Your task to perform on an android device: allow notifications from all sites in the chrome app Image 0: 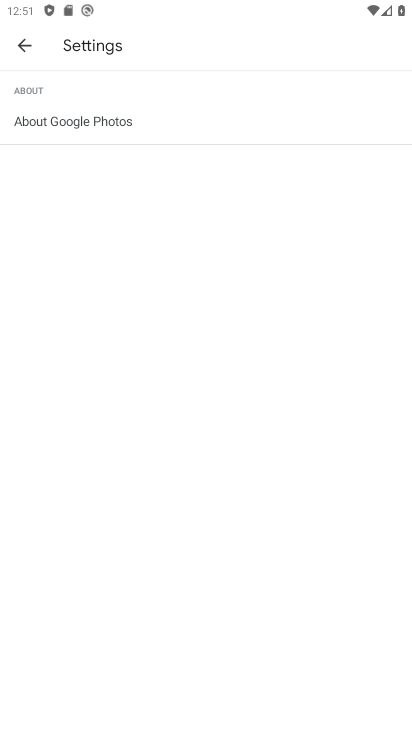
Step 0: press home button
Your task to perform on an android device: allow notifications from all sites in the chrome app Image 1: 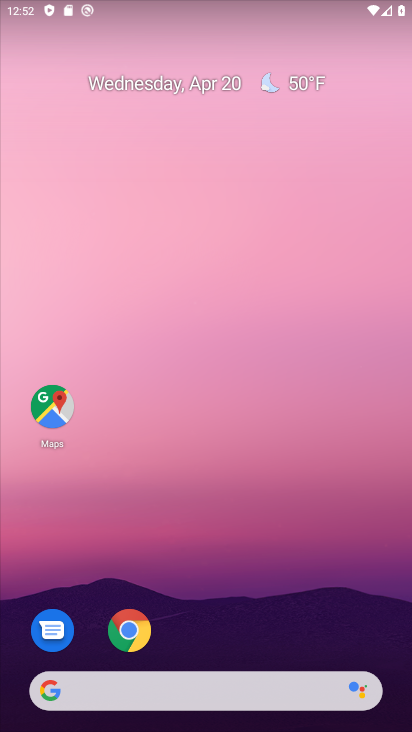
Step 1: click (129, 629)
Your task to perform on an android device: allow notifications from all sites in the chrome app Image 2: 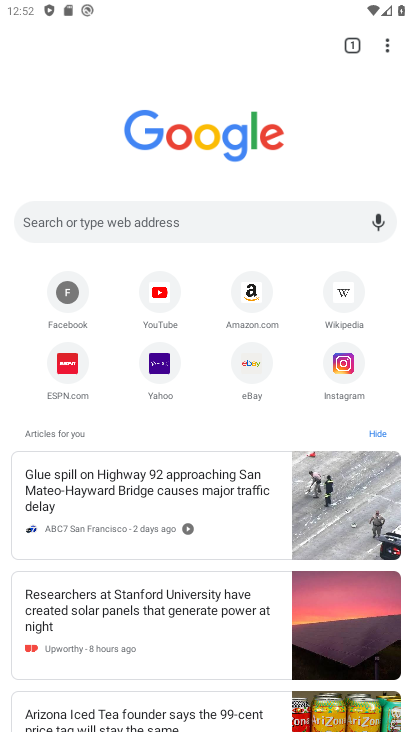
Step 2: click (385, 48)
Your task to perform on an android device: allow notifications from all sites in the chrome app Image 3: 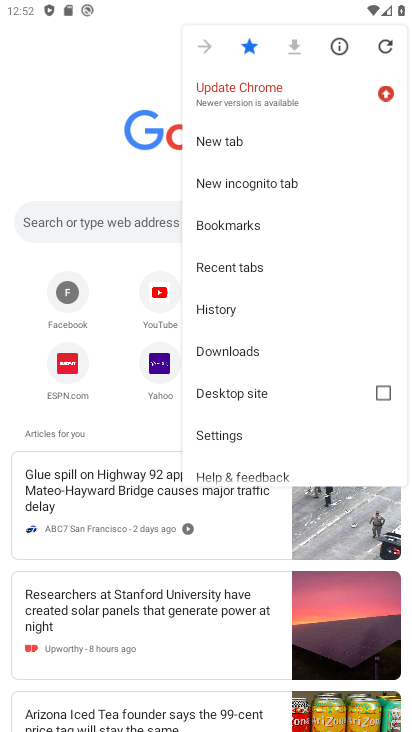
Step 3: click (261, 440)
Your task to perform on an android device: allow notifications from all sites in the chrome app Image 4: 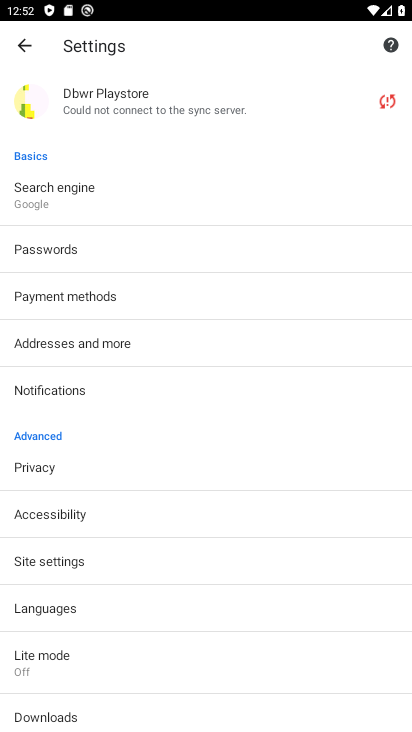
Step 4: click (98, 569)
Your task to perform on an android device: allow notifications from all sites in the chrome app Image 5: 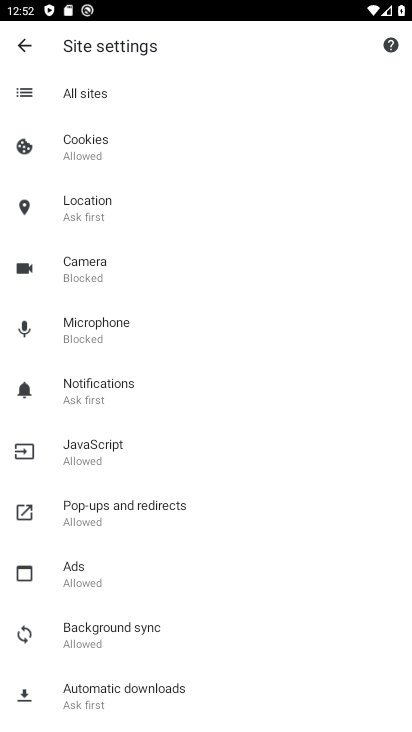
Step 5: drag from (235, 547) to (279, 359)
Your task to perform on an android device: allow notifications from all sites in the chrome app Image 6: 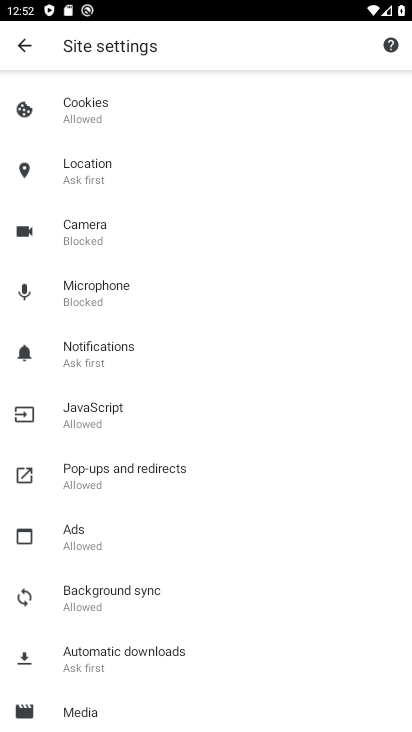
Step 6: click (94, 714)
Your task to perform on an android device: allow notifications from all sites in the chrome app Image 7: 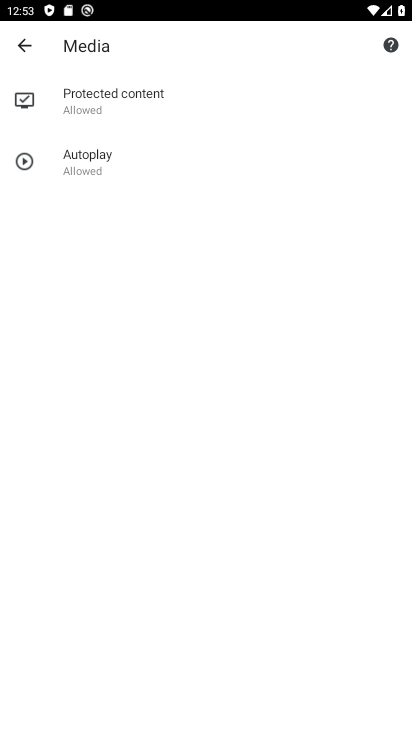
Step 7: task complete